Your task to perform on an android device: see creations saved in the google photos Image 0: 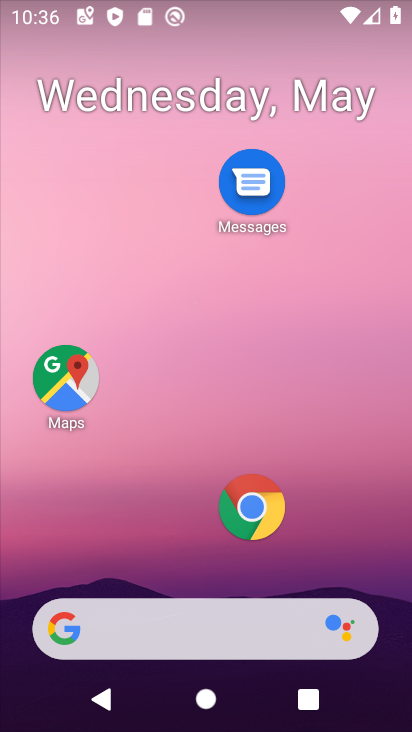
Step 0: drag from (210, 567) to (252, 33)
Your task to perform on an android device: see creations saved in the google photos Image 1: 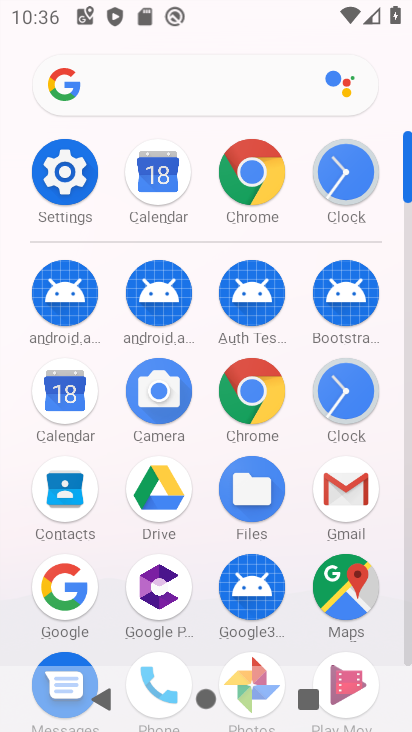
Step 1: drag from (196, 556) to (272, 138)
Your task to perform on an android device: see creations saved in the google photos Image 2: 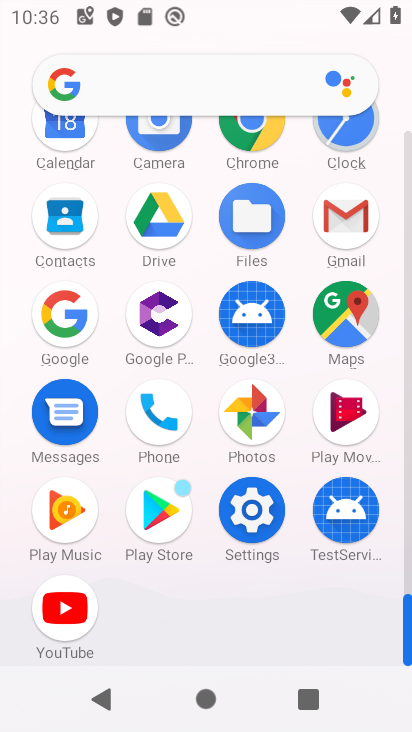
Step 2: click (251, 409)
Your task to perform on an android device: see creations saved in the google photos Image 3: 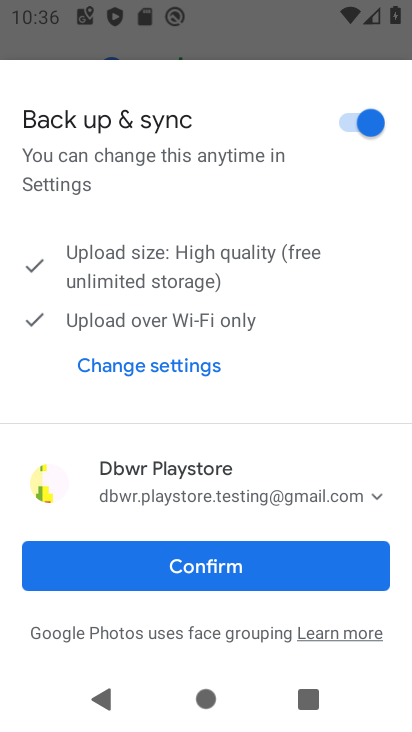
Step 3: click (209, 566)
Your task to perform on an android device: see creations saved in the google photos Image 4: 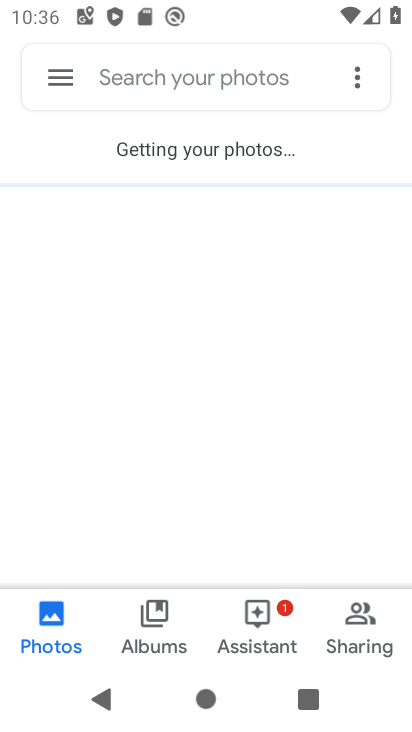
Step 4: click (151, 78)
Your task to perform on an android device: see creations saved in the google photos Image 5: 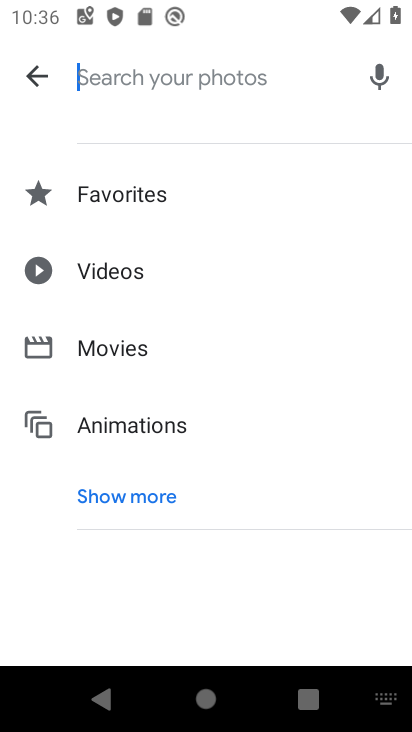
Step 5: click (134, 487)
Your task to perform on an android device: see creations saved in the google photos Image 6: 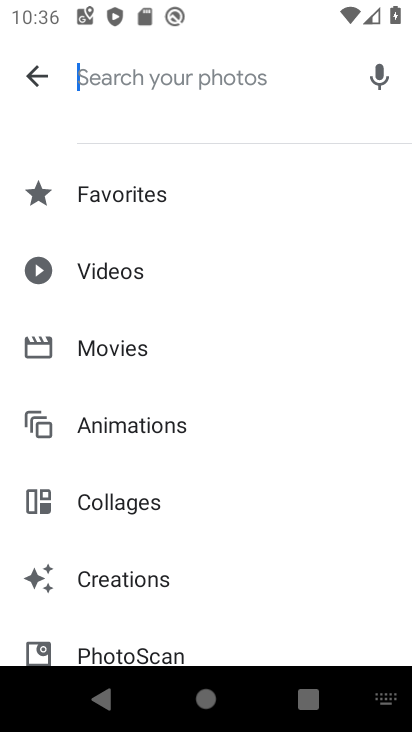
Step 6: click (137, 585)
Your task to perform on an android device: see creations saved in the google photos Image 7: 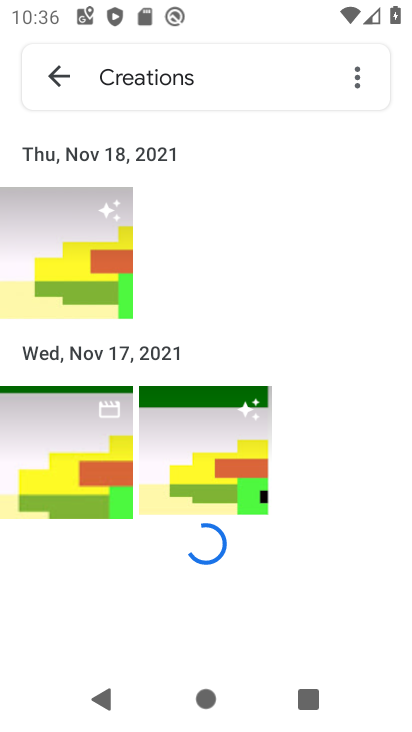
Step 7: task complete